Your task to perform on an android device: Open network settings Image 0: 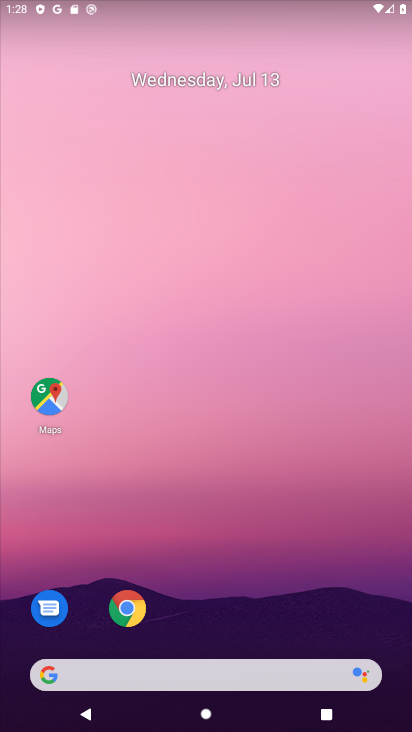
Step 0: drag from (198, 13) to (223, 712)
Your task to perform on an android device: Open network settings Image 1: 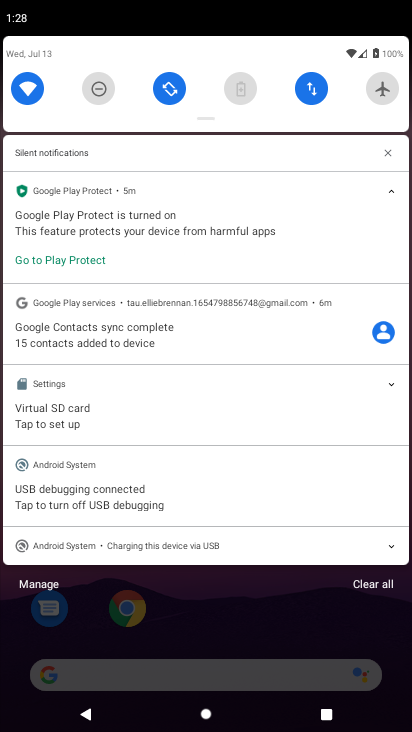
Step 1: click (323, 78)
Your task to perform on an android device: Open network settings Image 2: 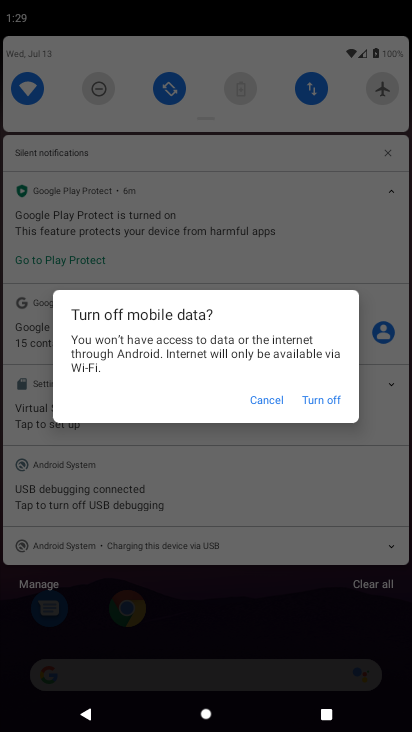
Step 2: click (324, 399)
Your task to perform on an android device: Open network settings Image 3: 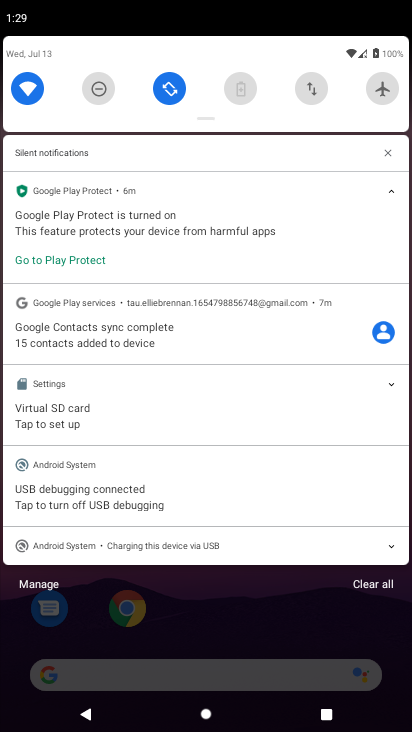
Step 3: click (304, 84)
Your task to perform on an android device: Open network settings Image 4: 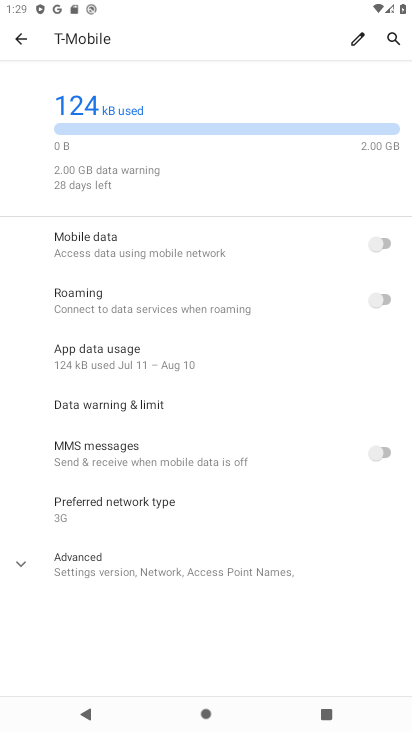
Step 4: task complete